Your task to perform on an android device: Open Maps and search for coffee Image 0: 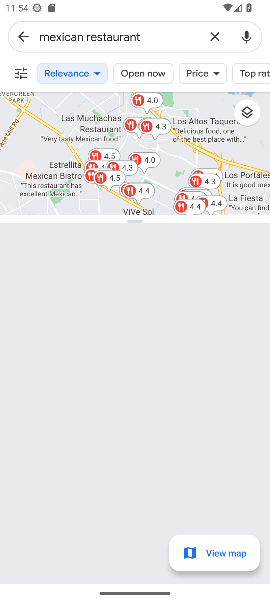
Step 0: press home button
Your task to perform on an android device: Open Maps and search for coffee Image 1: 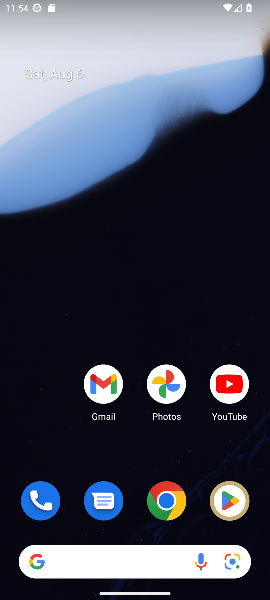
Step 1: drag from (150, 485) to (207, 162)
Your task to perform on an android device: Open Maps and search for coffee Image 2: 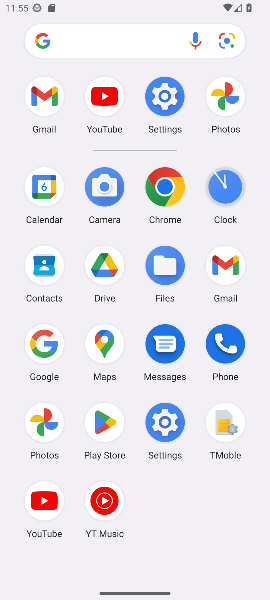
Step 2: click (107, 351)
Your task to perform on an android device: Open Maps and search for coffee Image 3: 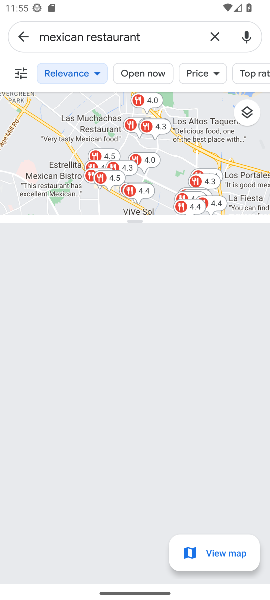
Step 3: click (214, 37)
Your task to perform on an android device: Open Maps and search for coffee Image 4: 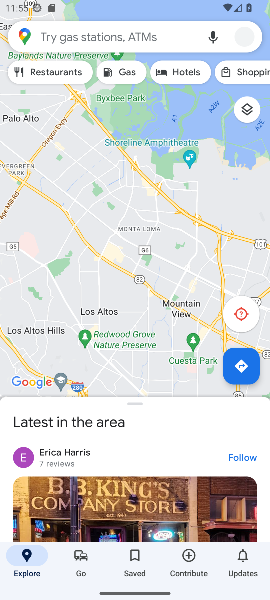
Step 4: click (94, 39)
Your task to perform on an android device: Open Maps and search for coffee Image 5: 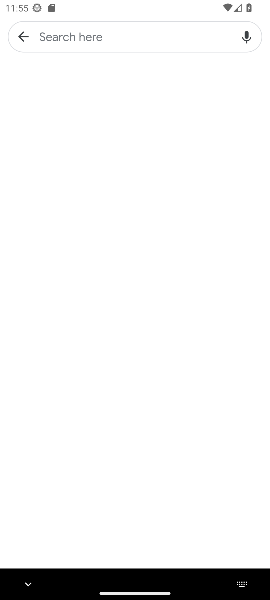
Step 5: type "coffee"
Your task to perform on an android device: Open Maps and search for coffee Image 6: 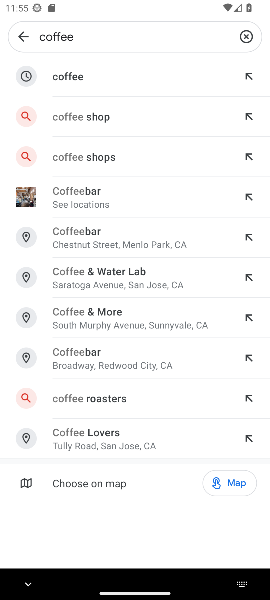
Step 6: click (86, 78)
Your task to perform on an android device: Open Maps and search for coffee Image 7: 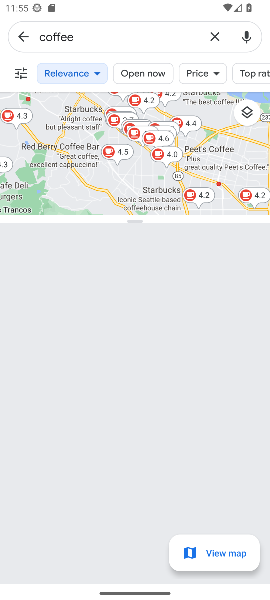
Step 7: task complete